Your task to perform on an android device: Show me popular videos on Youtube Image 0: 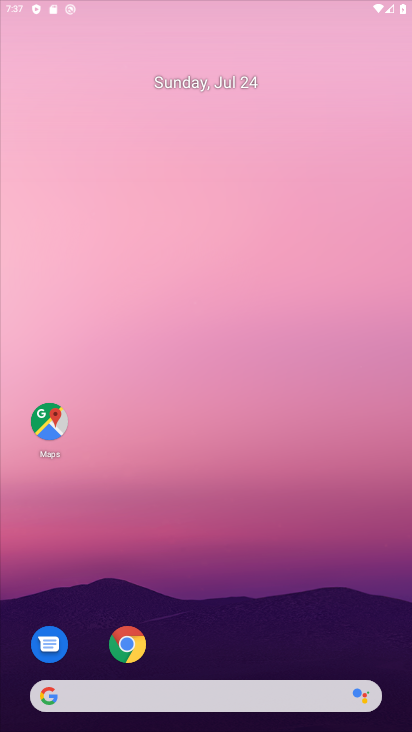
Step 0: drag from (185, 676) to (251, 223)
Your task to perform on an android device: Show me popular videos on Youtube Image 1: 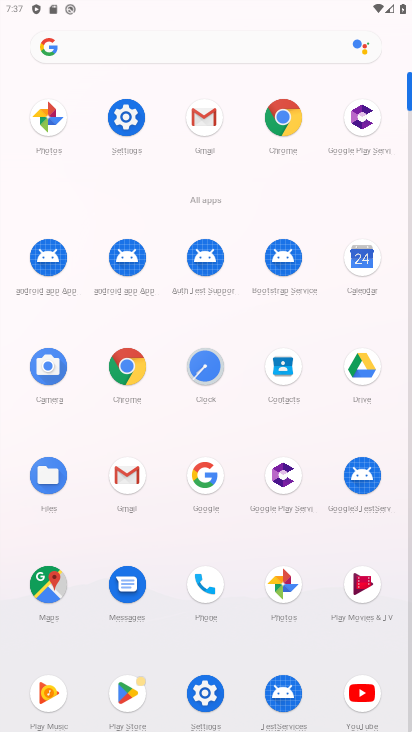
Step 1: click (359, 695)
Your task to perform on an android device: Show me popular videos on Youtube Image 2: 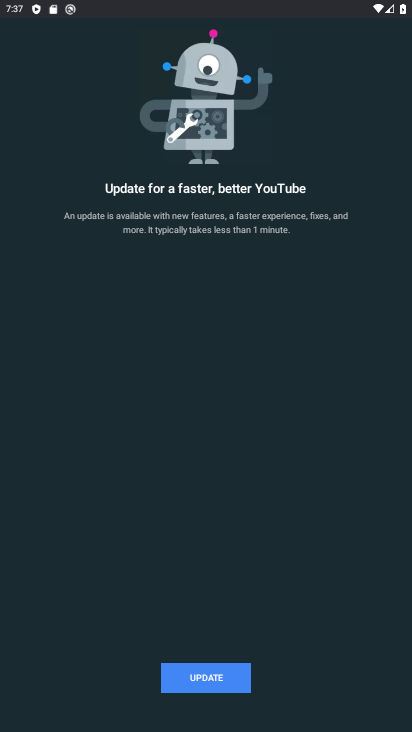
Step 2: click (221, 688)
Your task to perform on an android device: Show me popular videos on Youtube Image 3: 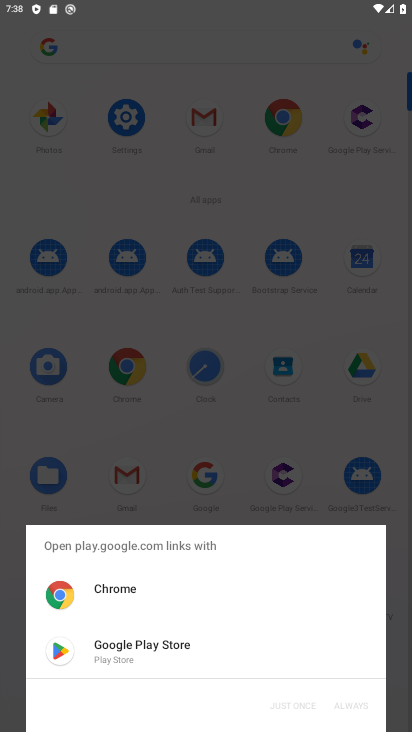
Step 3: click (166, 648)
Your task to perform on an android device: Show me popular videos on Youtube Image 4: 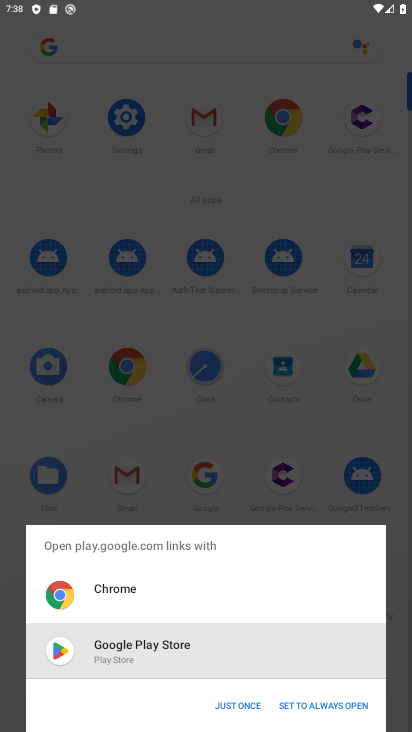
Step 4: click (221, 704)
Your task to perform on an android device: Show me popular videos on Youtube Image 5: 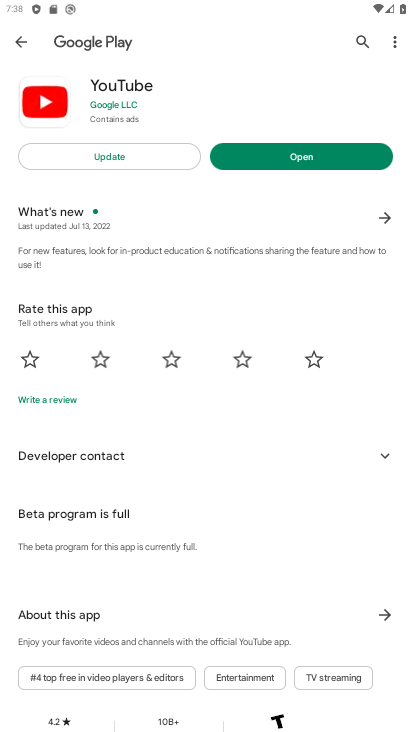
Step 5: click (122, 152)
Your task to perform on an android device: Show me popular videos on Youtube Image 6: 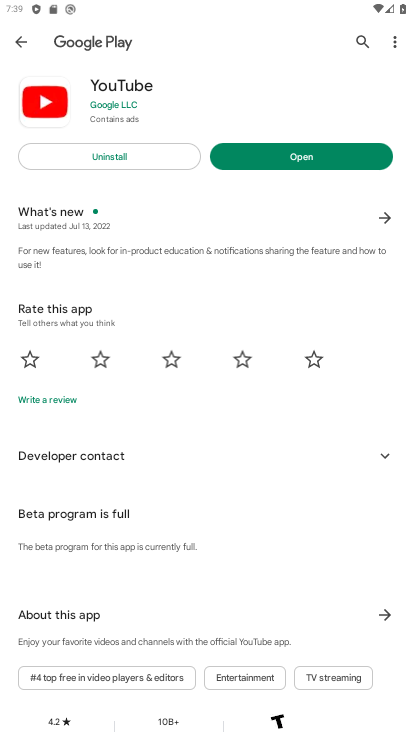
Step 6: click (295, 158)
Your task to perform on an android device: Show me popular videos on Youtube Image 7: 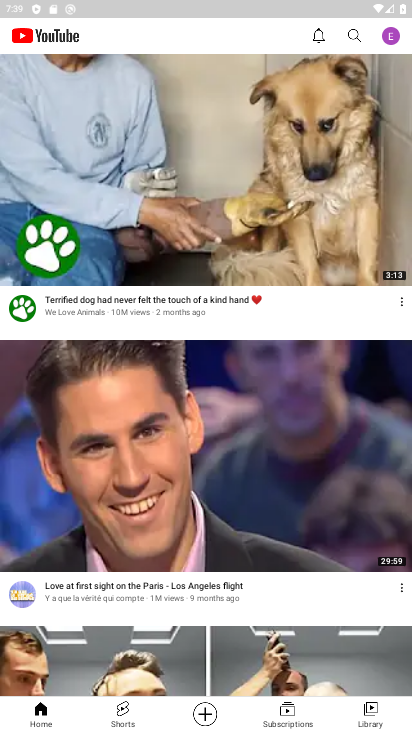
Step 7: drag from (83, 121) to (74, 396)
Your task to perform on an android device: Show me popular videos on Youtube Image 8: 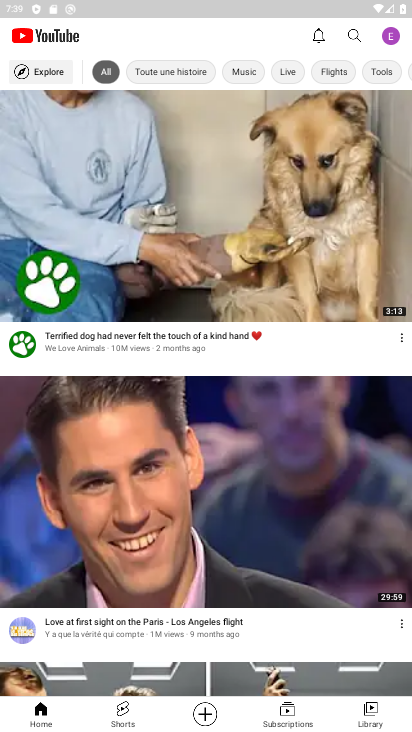
Step 8: click (38, 73)
Your task to perform on an android device: Show me popular videos on Youtube Image 9: 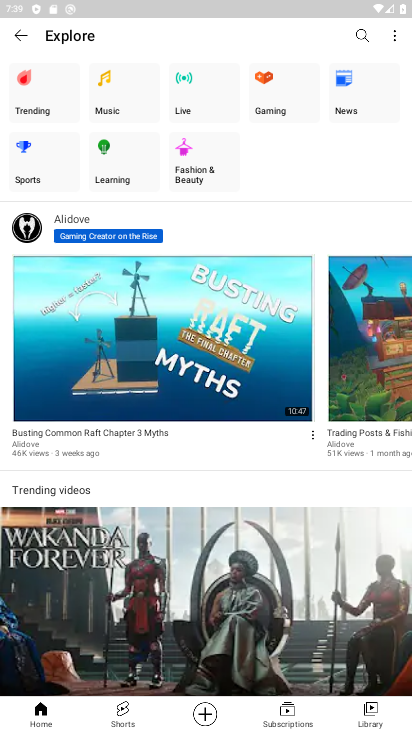
Step 9: click (49, 104)
Your task to perform on an android device: Show me popular videos on Youtube Image 10: 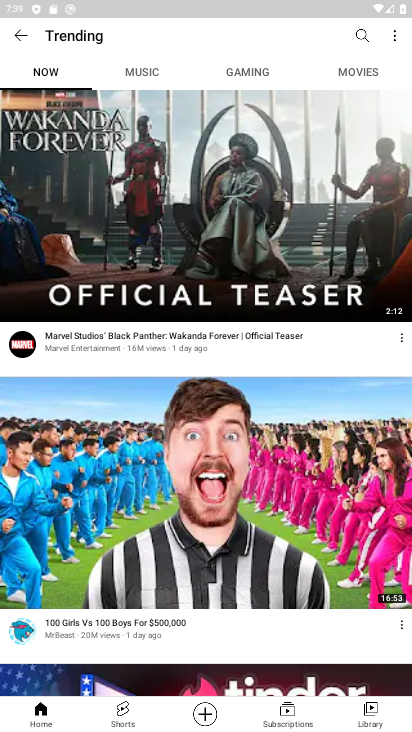
Step 10: task complete